Your task to perform on an android device: Go to Google Image 0: 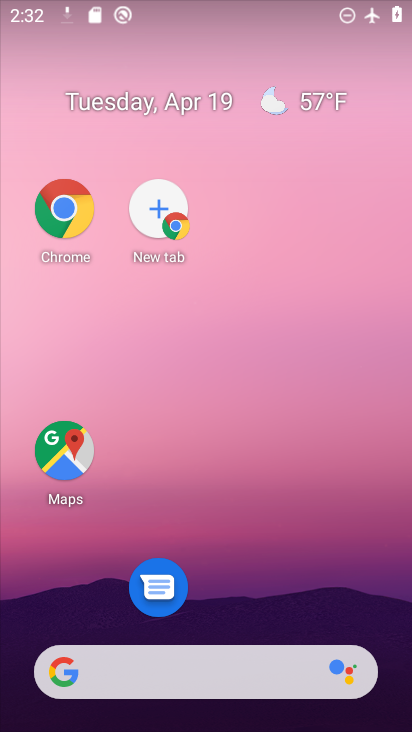
Step 0: drag from (293, 582) to (253, 292)
Your task to perform on an android device: Go to Google Image 1: 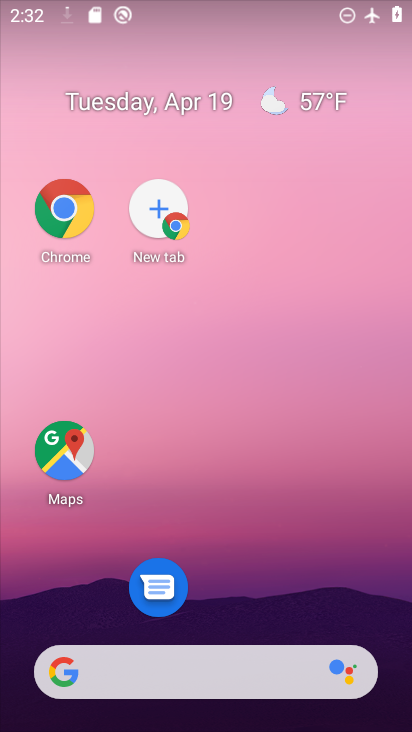
Step 1: drag from (318, 608) to (195, 200)
Your task to perform on an android device: Go to Google Image 2: 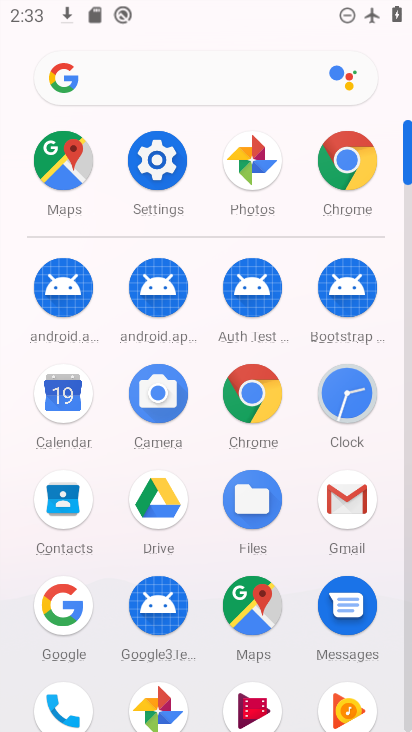
Step 2: click (83, 600)
Your task to perform on an android device: Go to Google Image 3: 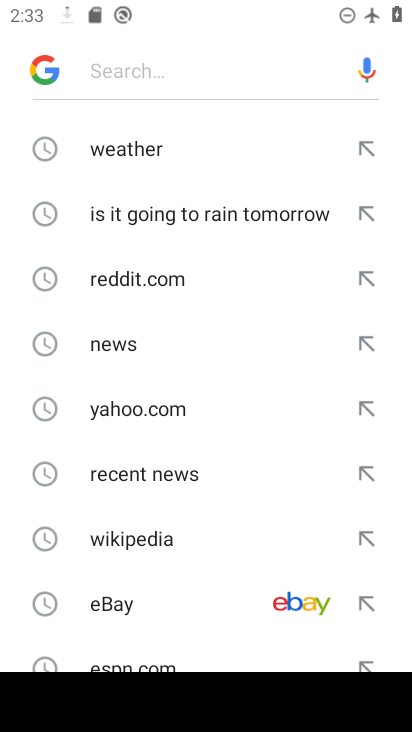
Step 3: press home button
Your task to perform on an android device: Go to Google Image 4: 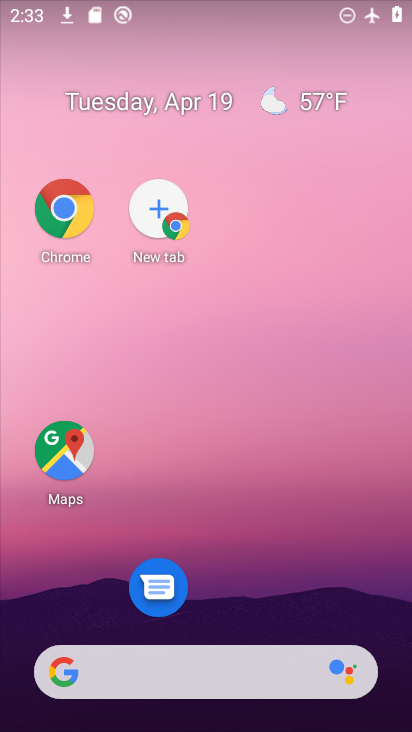
Step 4: drag from (307, 571) to (172, 181)
Your task to perform on an android device: Go to Google Image 5: 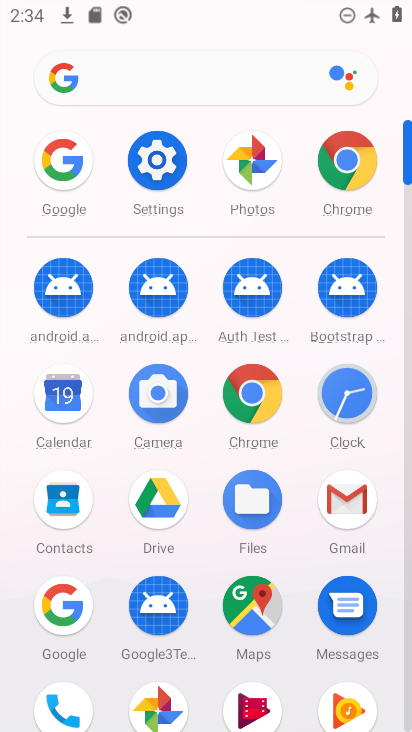
Step 5: click (65, 600)
Your task to perform on an android device: Go to Google Image 6: 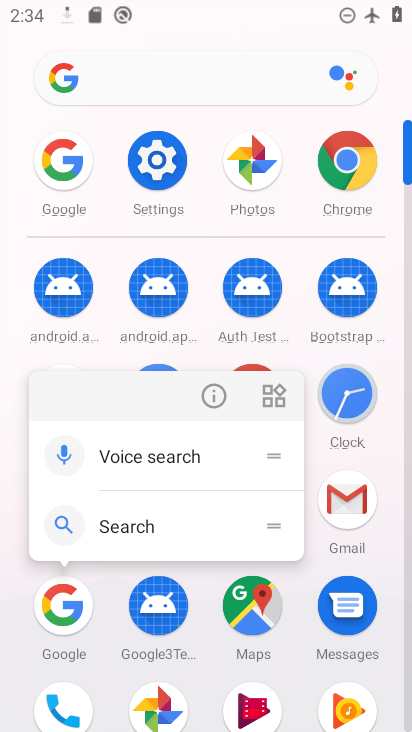
Step 6: click (62, 600)
Your task to perform on an android device: Go to Google Image 7: 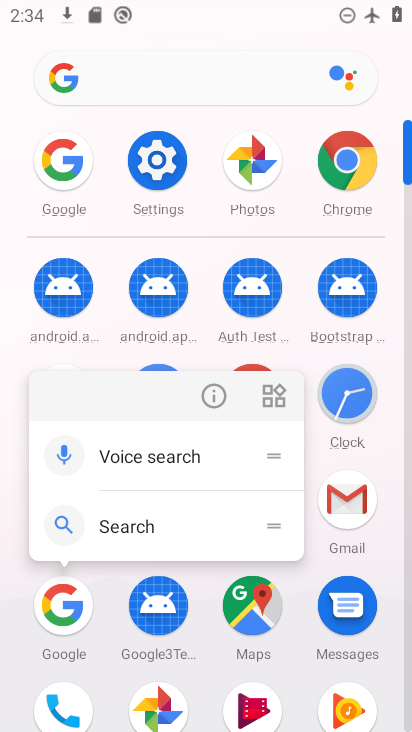
Step 7: click (62, 600)
Your task to perform on an android device: Go to Google Image 8: 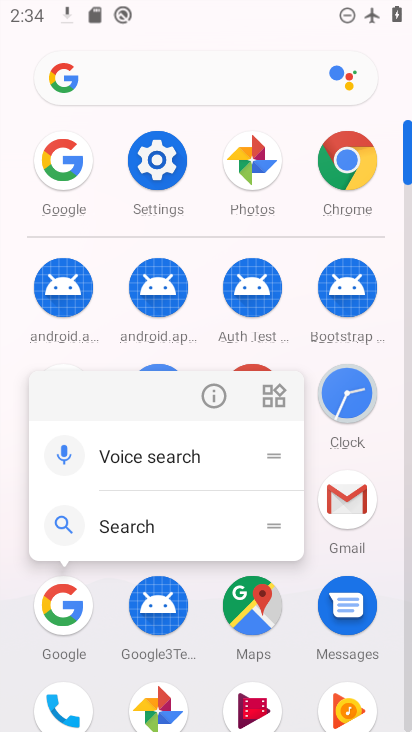
Step 8: click (62, 600)
Your task to perform on an android device: Go to Google Image 9: 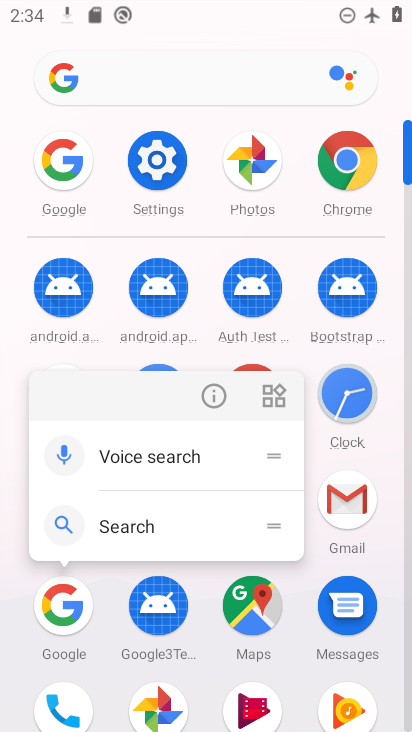
Step 9: click (62, 600)
Your task to perform on an android device: Go to Google Image 10: 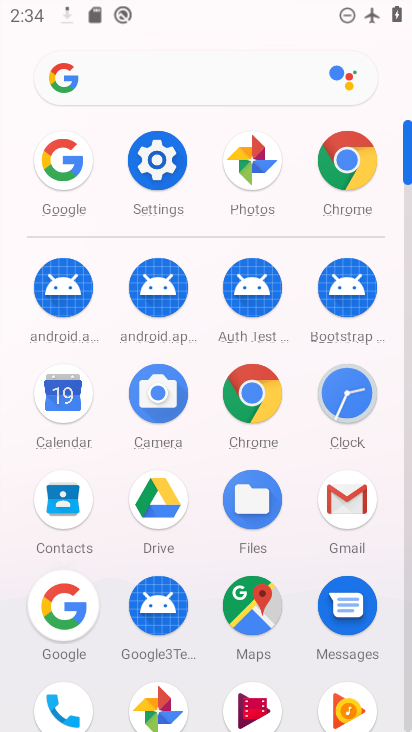
Step 10: click (62, 600)
Your task to perform on an android device: Go to Google Image 11: 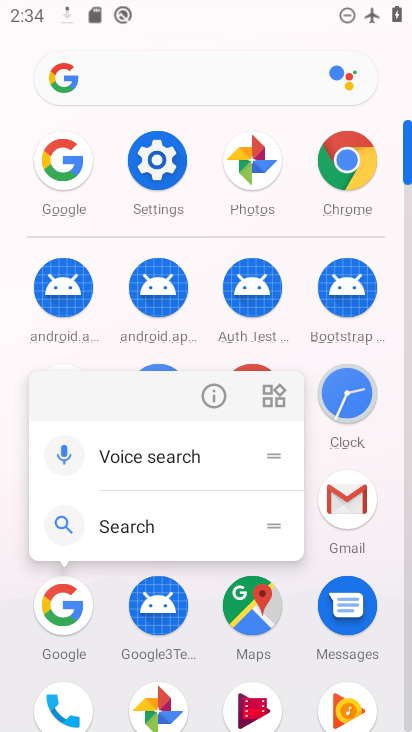
Step 11: click (62, 600)
Your task to perform on an android device: Go to Google Image 12: 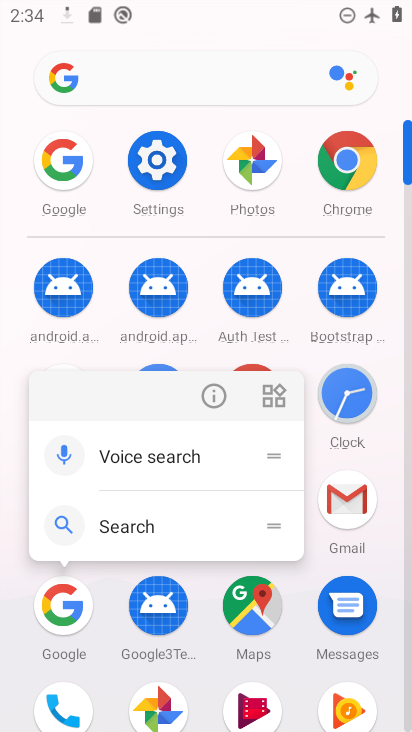
Step 12: click (54, 597)
Your task to perform on an android device: Go to Google Image 13: 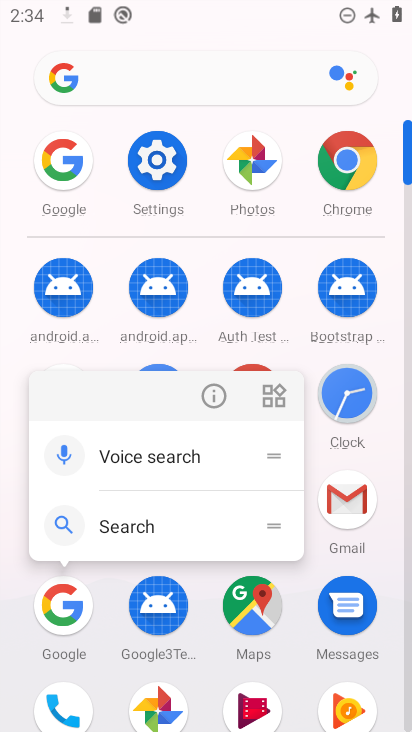
Step 13: click (55, 595)
Your task to perform on an android device: Go to Google Image 14: 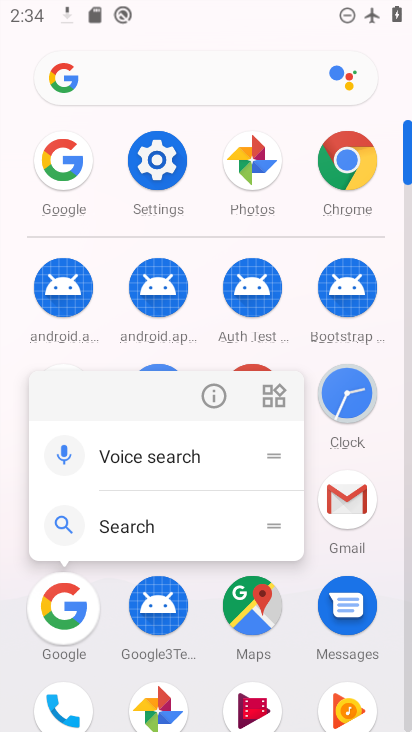
Step 14: click (55, 598)
Your task to perform on an android device: Go to Google Image 15: 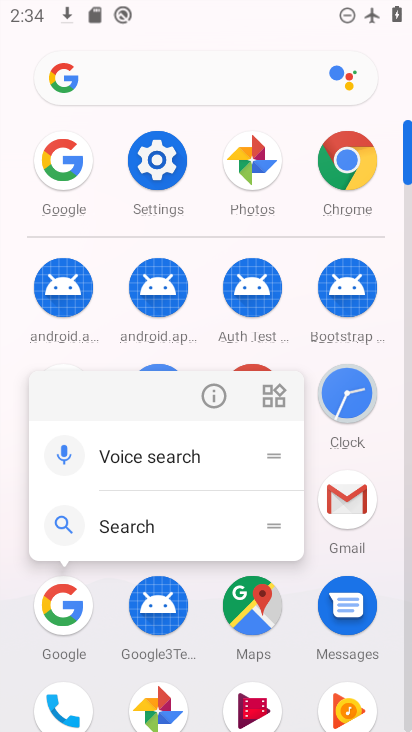
Step 15: click (54, 608)
Your task to perform on an android device: Go to Google Image 16: 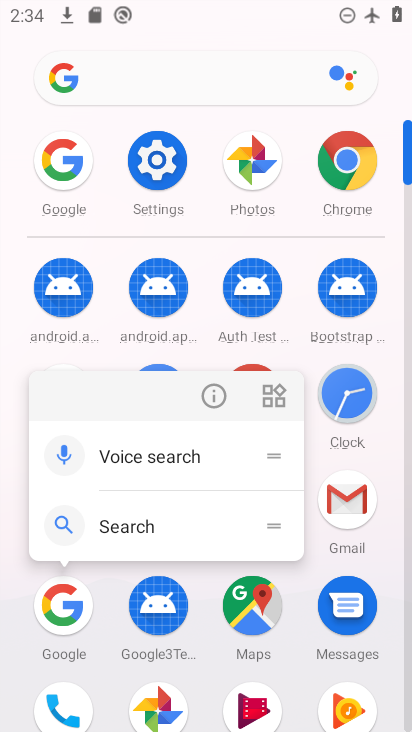
Step 16: click (73, 598)
Your task to perform on an android device: Go to Google Image 17: 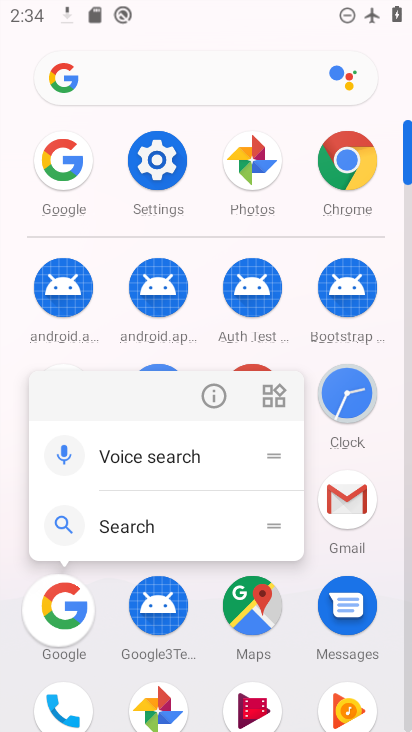
Step 17: click (68, 603)
Your task to perform on an android device: Go to Google Image 18: 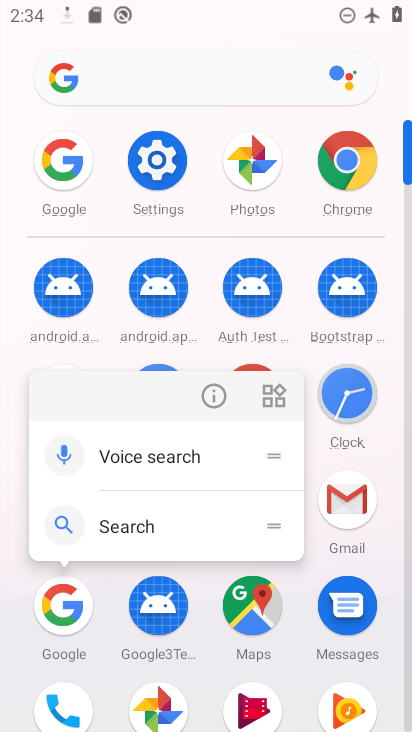
Step 18: click (50, 605)
Your task to perform on an android device: Go to Google Image 19: 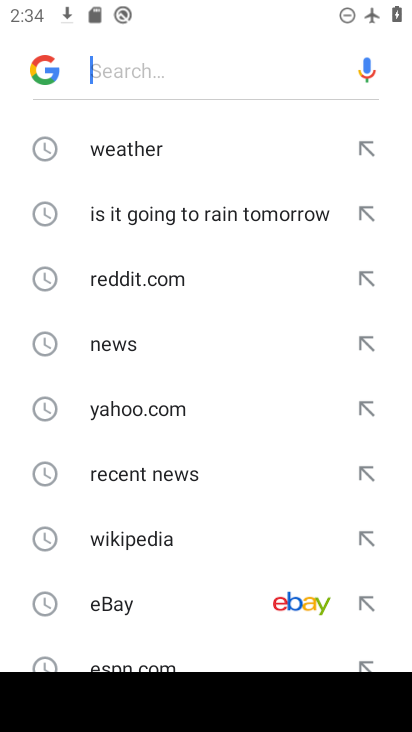
Step 19: press back button
Your task to perform on an android device: Go to Google Image 20: 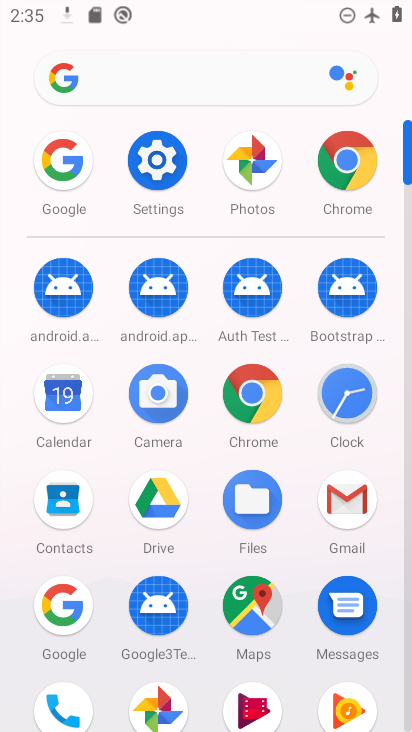
Step 20: click (63, 609)
Your task to perform on an android device: Go to Google Image 21: 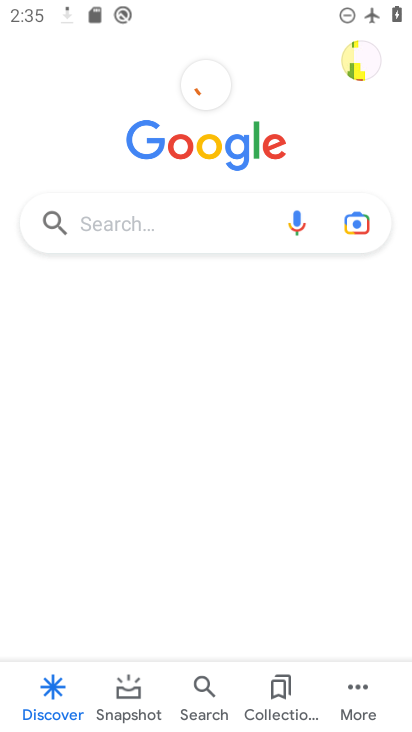
Step 21: task complete